Your task to perform on an android device: Go to Amazon Image 0: 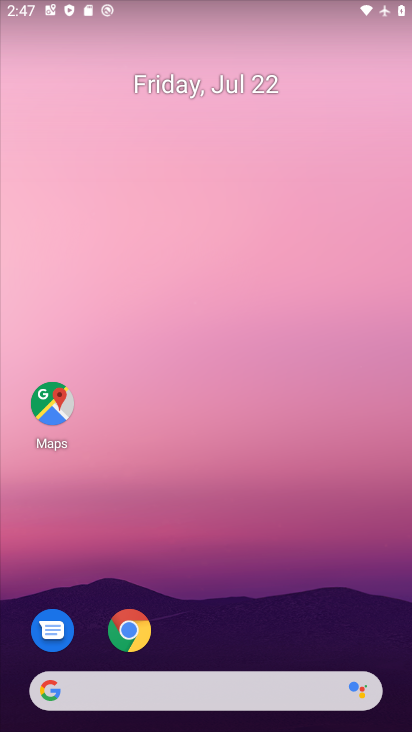
Step 0: click (131, 633)
Your task to perform on an android device: Go to Amazon Image 1: 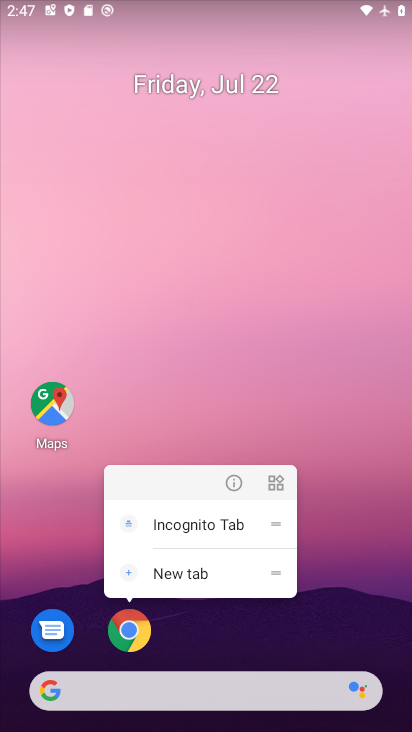
Step 1: click (137, 624)
Your task to perform on an android device: Go to Amazon Image 2: 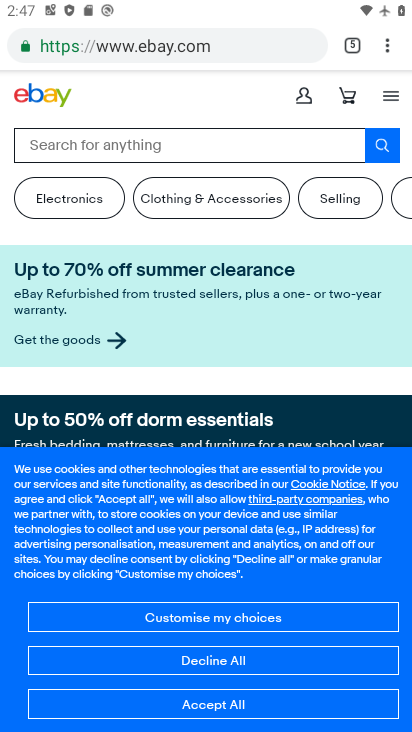
Step 2: click (348, 48)
Your task to perform on an android device: Go to Amazon Image 3: 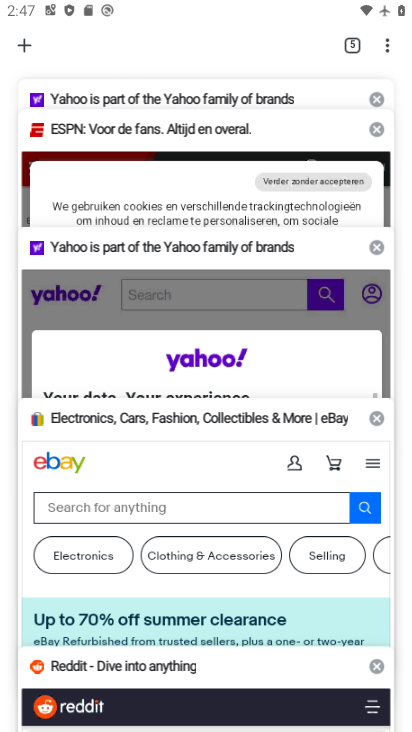
Step 3: click (31, 43)
Your task to perform on an android device: Go to Amazon Image 4: 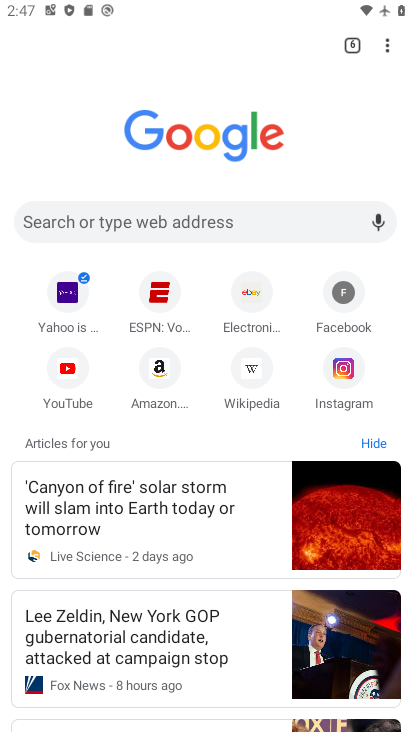
Step 4: click (156, 375)
Your task to perform on an android device: Go to Amazon Image 5: 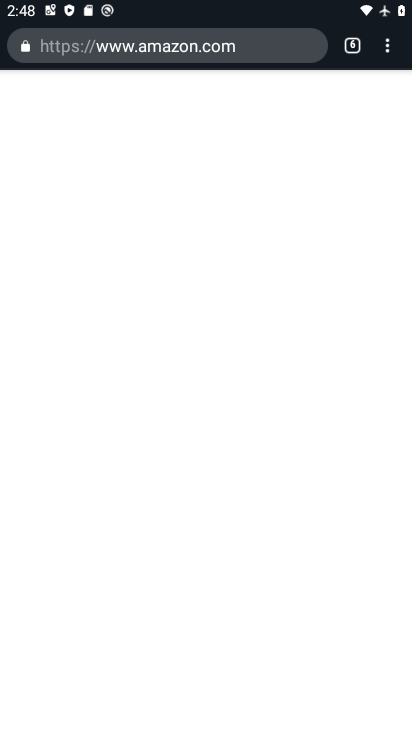
Step 5: task complete